Your task to perform on an android device: change the clock style Image 0: 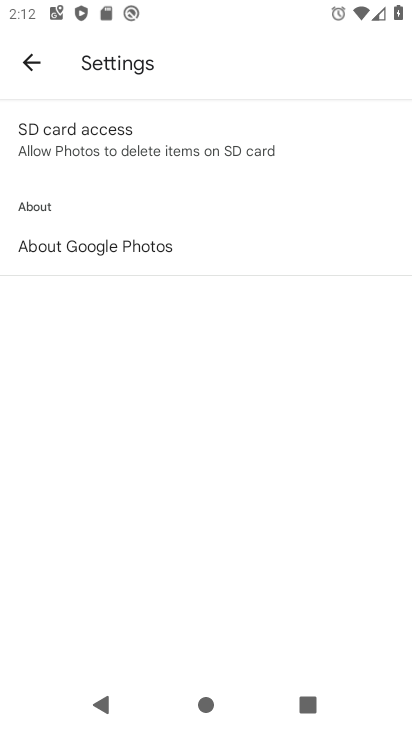
Step 0: press home button
Your task to perform on an android device: change the clock style Image 1: 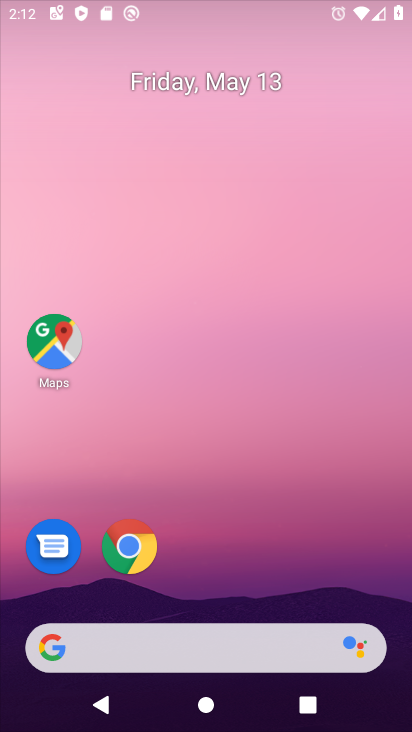
Step 1: drag from (318, 582) to (316, 135)
Your task to perform on an android device: change the clock style Image 2: 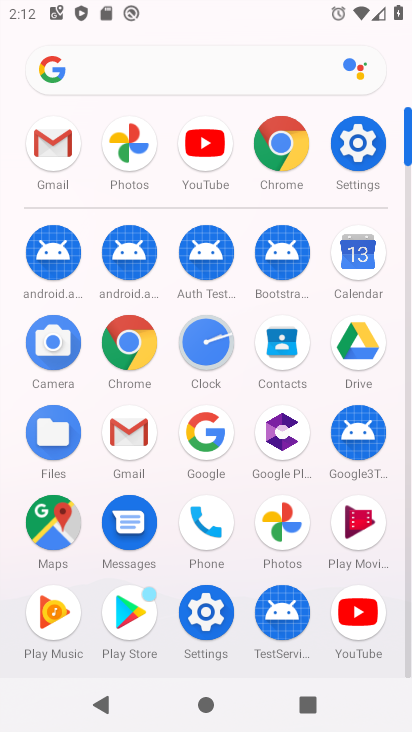
Step 2: click (218, 351)
Your task to perform on an android device: change the clock style Image 3: 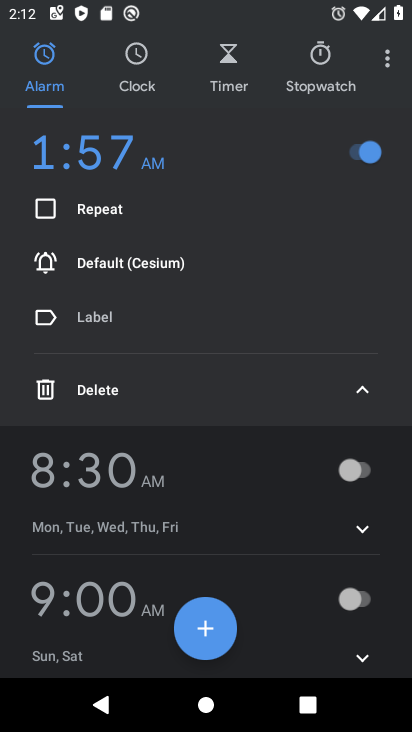
Step 3: click (389, 53)
Your task to perform on an android device: change the clock style Image 4: 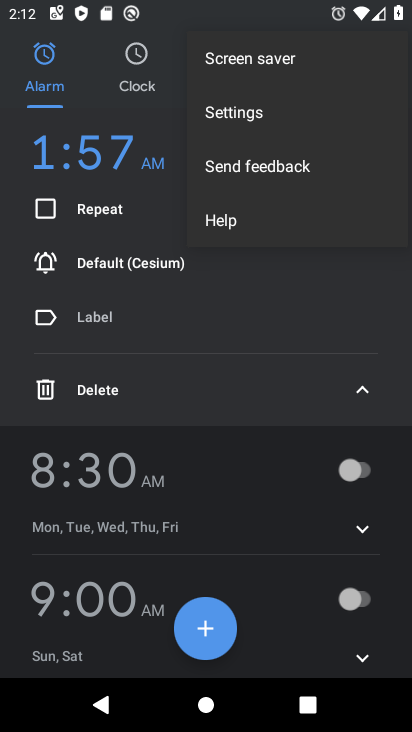
Step 4: click (230, 117)
Your task to perform on an android device: change the clock style Image 5: 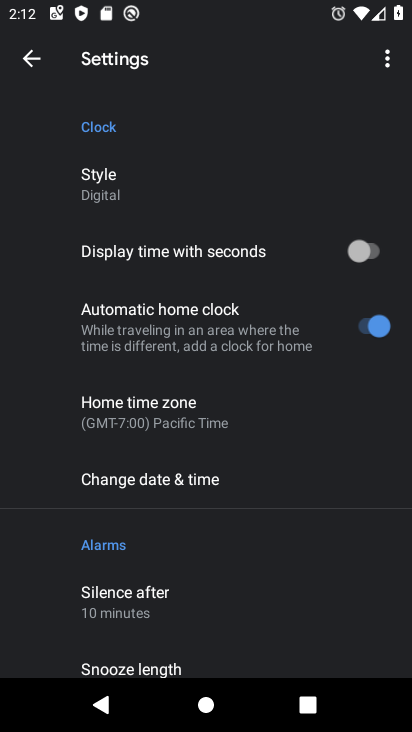
Step 5: click (131, 173)
Your task to perform on an android device: change the clock style Image 6: 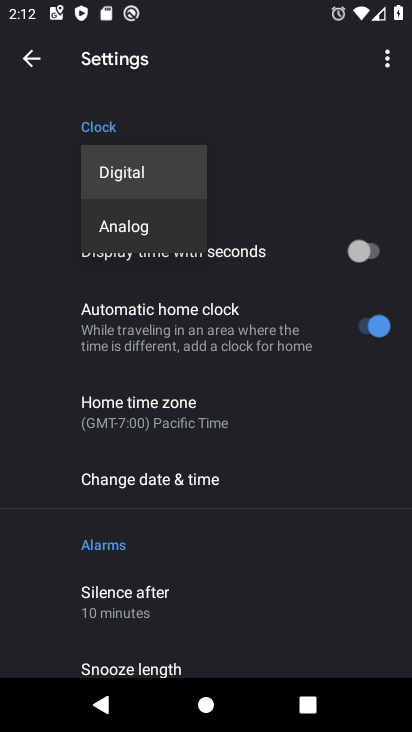
Step 6: click (137, 227)
Your task to perform on an android device: change the clock style Image 7: 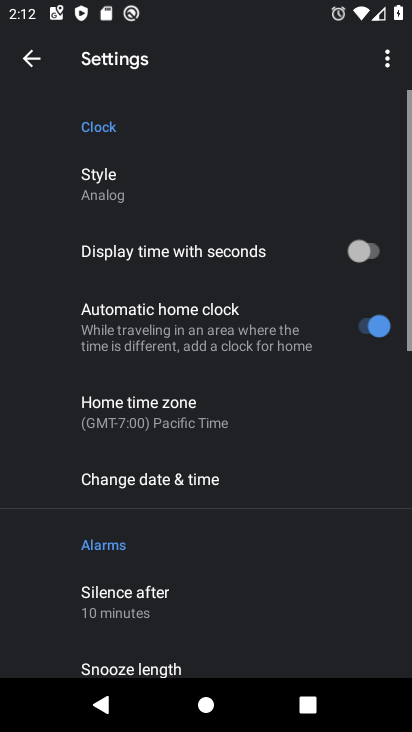
Step 7: task complete